Your task to perform on an android device: Do I have any events today? Image 0: 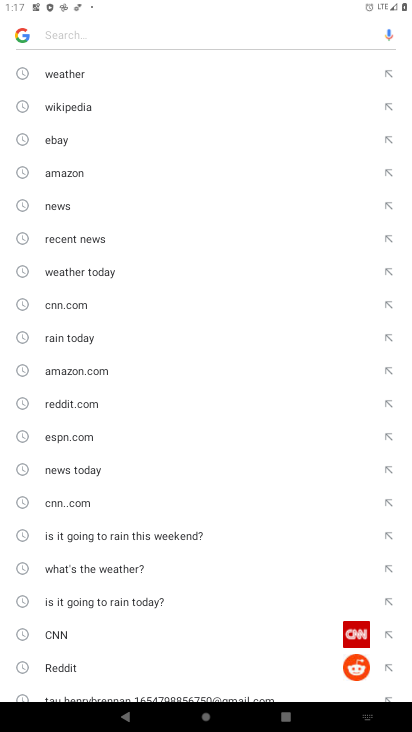
Step 0: press home button
Your task to perform on an android device: Do I have any events today? Image 1: 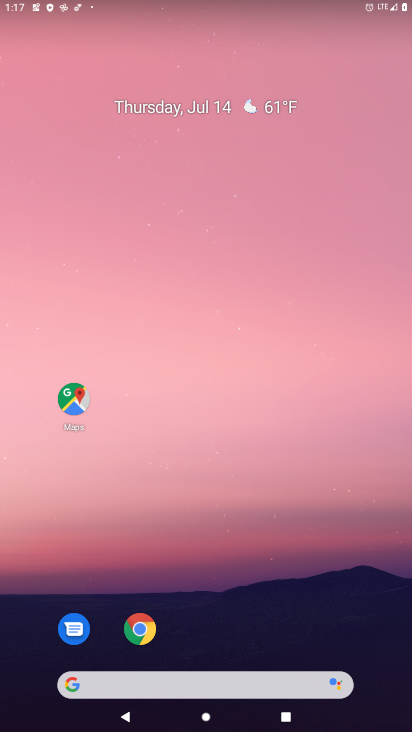
Step 1: drag from (276, 547) to (262, 184)
Your task to perform on an android device: Do I have any events today? Image 2: 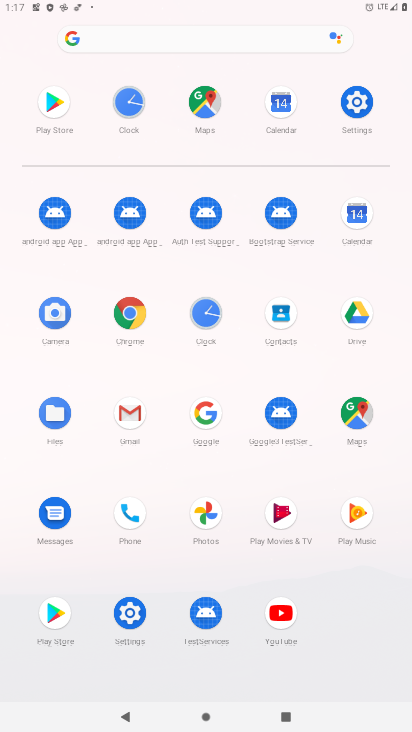
Step 2: click (347, 208)
Your task to perform on an android device: Do I have any events today? Image 3: 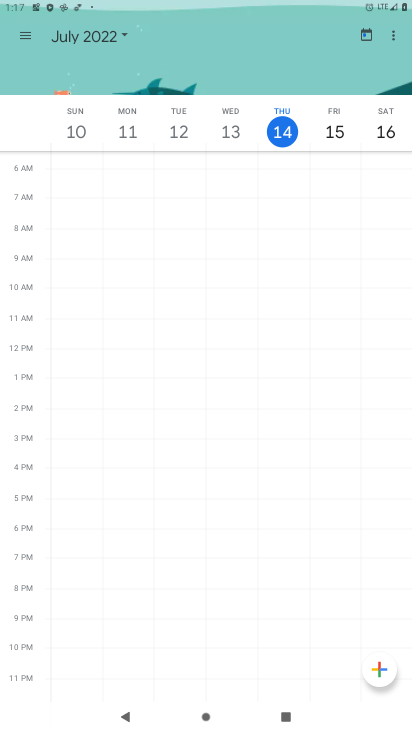
Step 3: click (283, 131)
Your task to perform on an android device: Do I have any events today? Image 4: 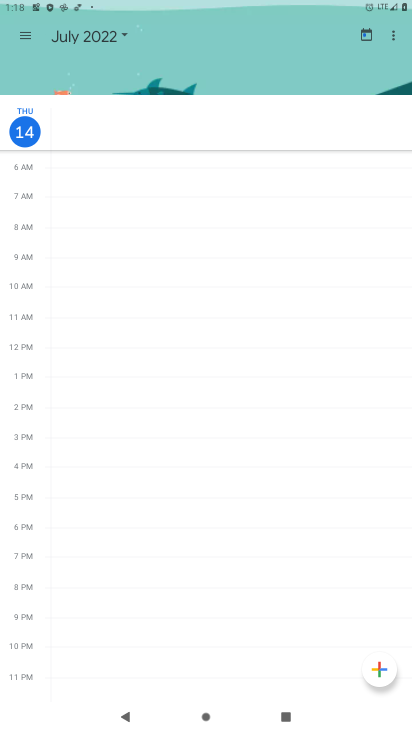
Step 4: task complete